Your task to perform on an android device: Open Yahoo.com Image 0: 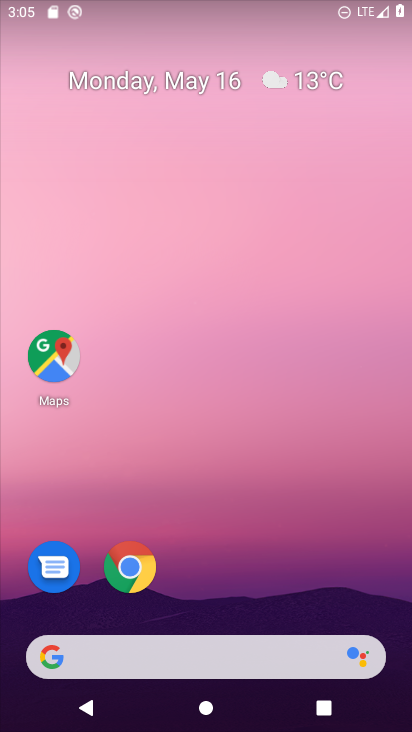
Step 0: click (133, 568)
Your task to perform on an android device: Open Yahoo.com Image 1: 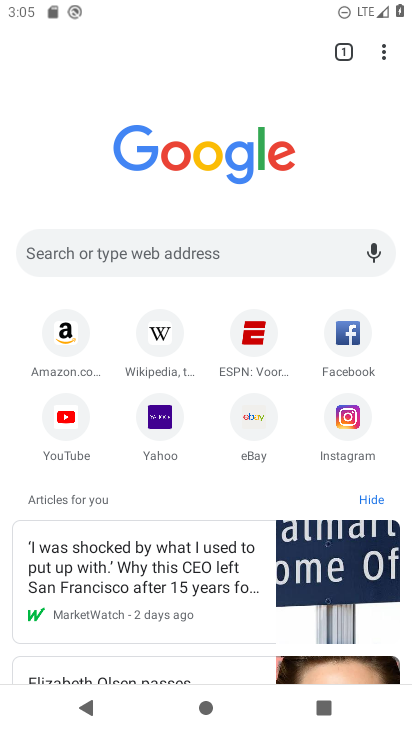
Step 1: click (166, 431)
Your task to perform on an android device: Open Yahoo.com Image 2: 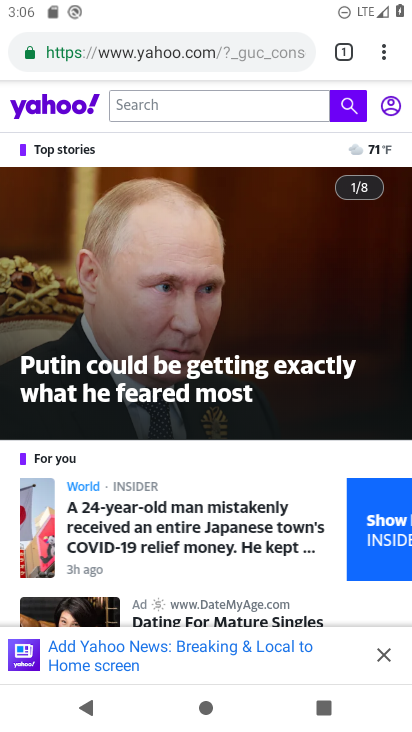
Step 2: task complete